Your task to perform on an android device: Show the shopping cart on ebay.com. Add "corsair k70" to the cart on ebay.com, then select checkout. Image 0: 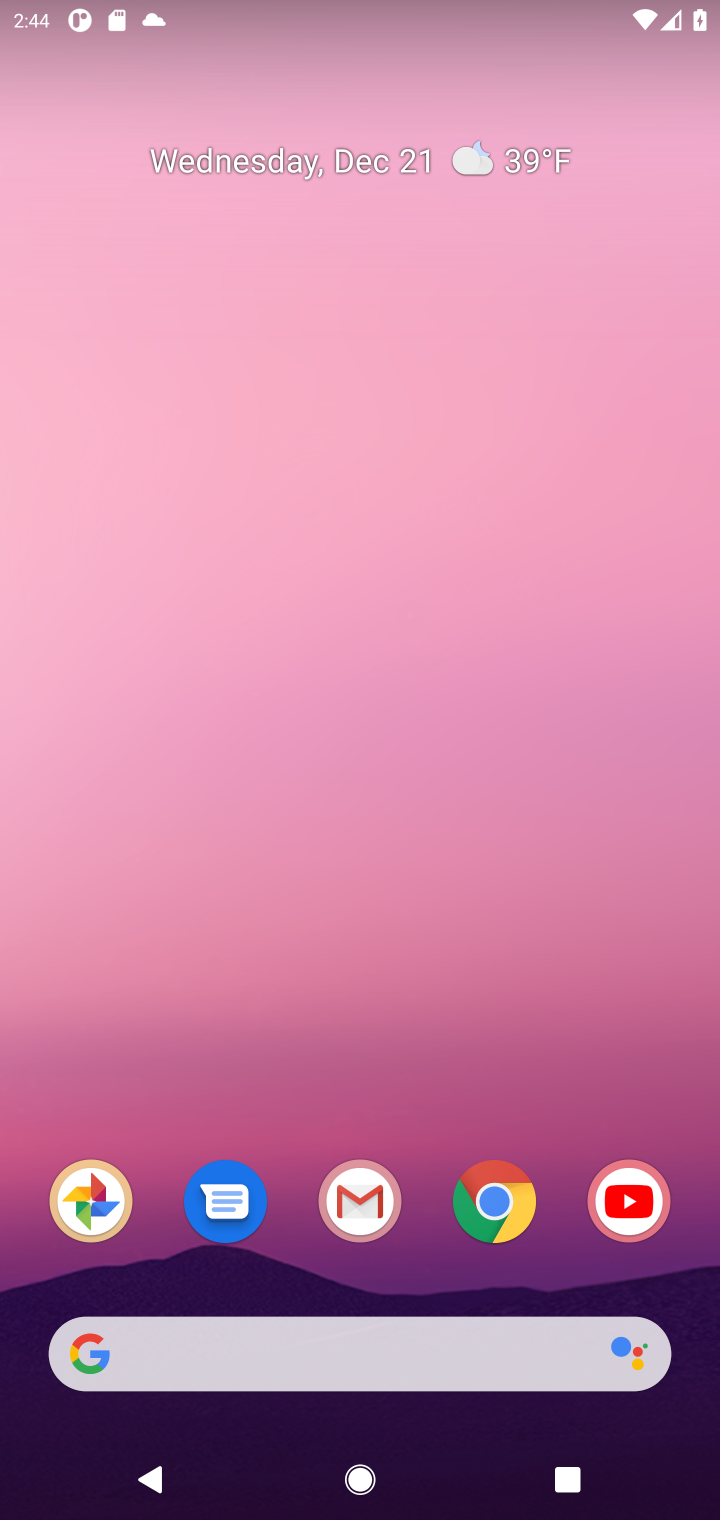
Step 0: click (505, 1202)
Your task to perform on an android device: Show the shopping cart on ebay.com. Add "corsair k70" to the cart on ebay.com, then select checkout. Image 1: 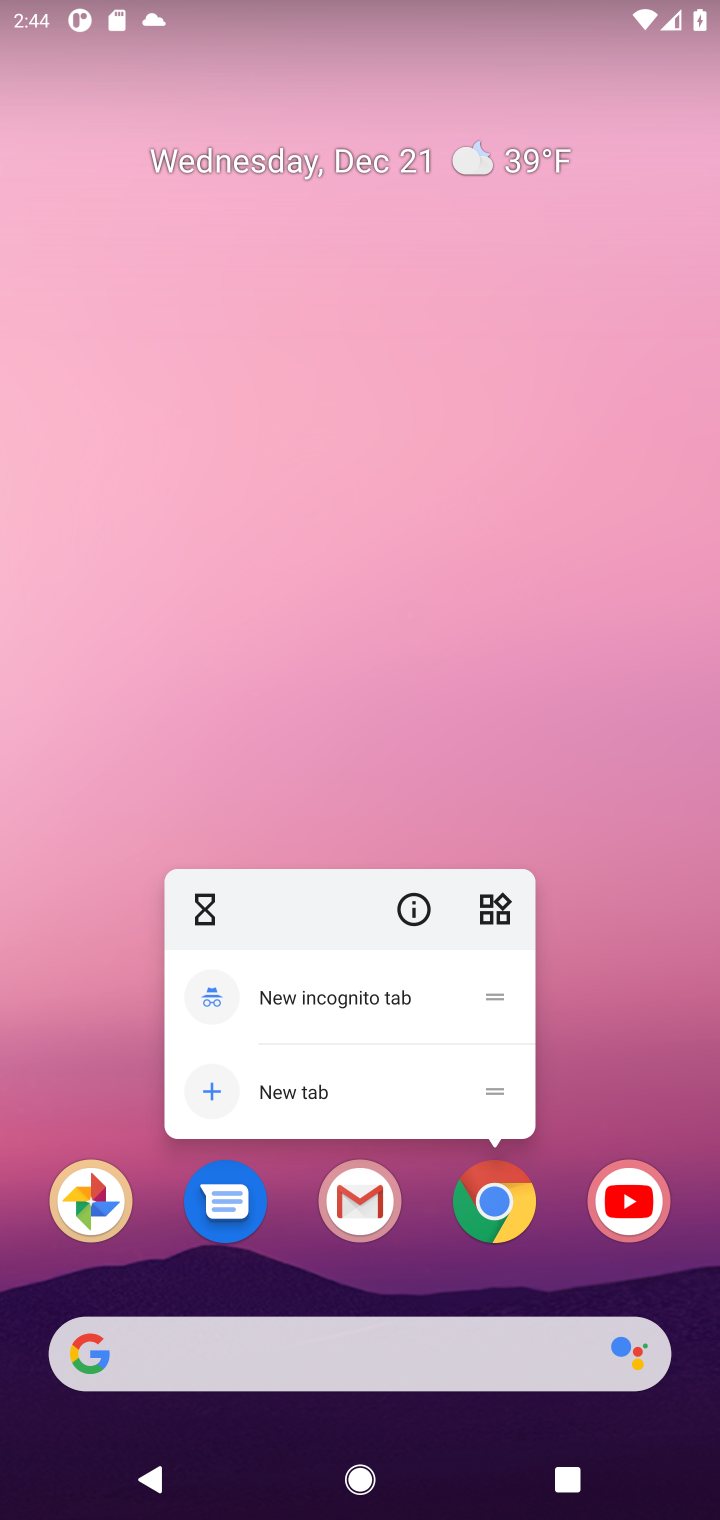
Step 1: click (505, 1202)
Your task to perform on an android device: Show the shopping cart on ebay.com. Add "corsair k70" to the cart on ebay.com, then select checkout. Image 2: 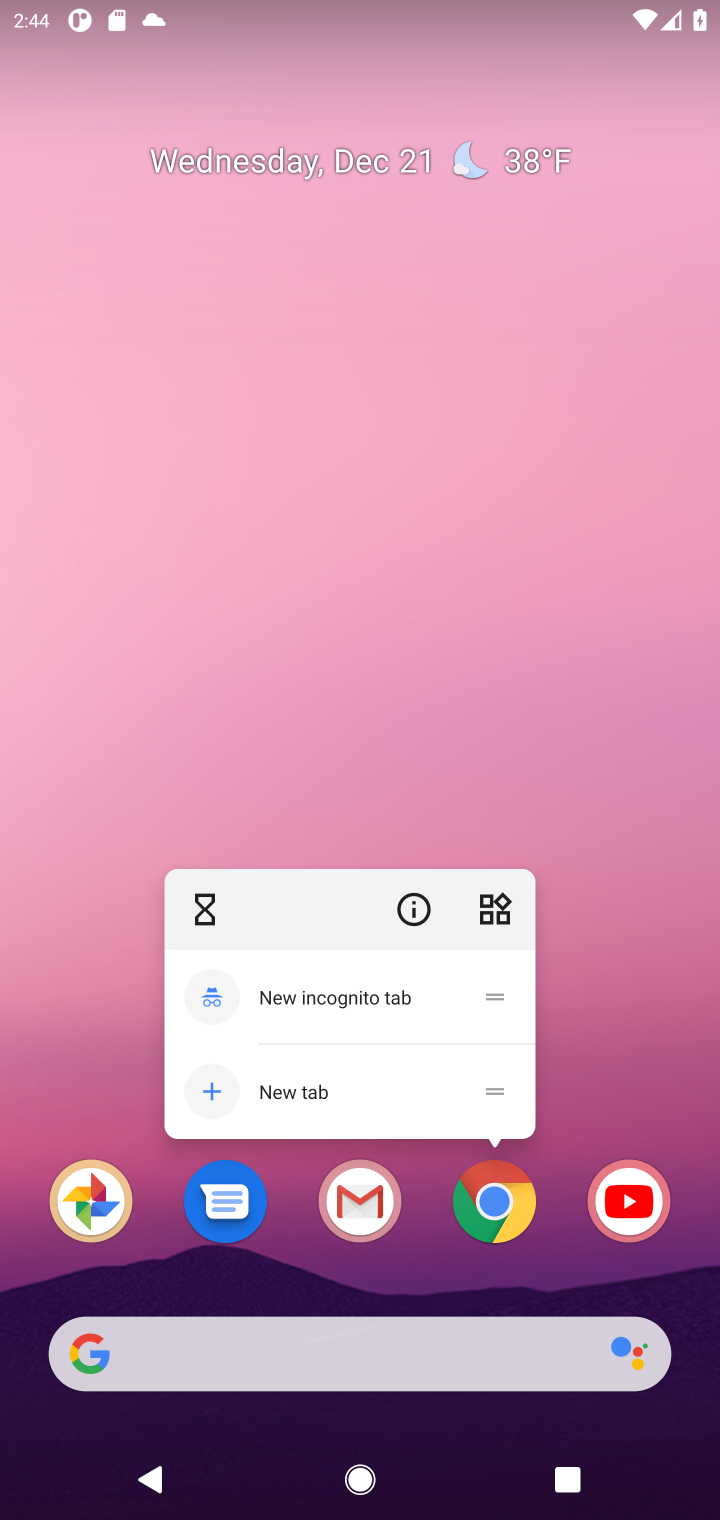
Step 2: click (496, 1202)
Your task to perform on an android device: Show the shopping cart on ebay.com. Add "corsair k70" to the cart on ebay.com, then select checkout. Image 3: 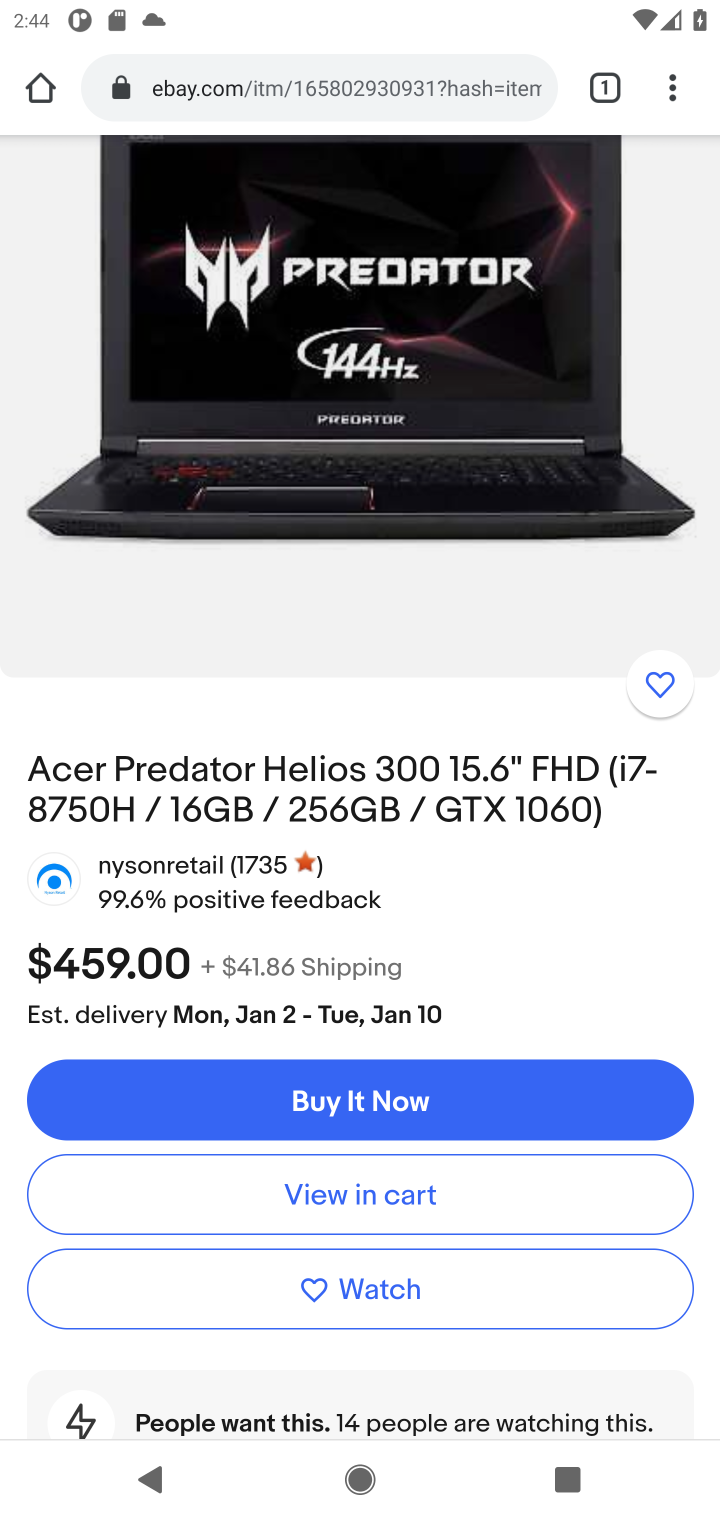
Step 3: drag from (426, 468) to (372, 1078)
Your task to perform on an android device: Show the shopping cart on ebay.com. Add "corsair k70" to the cart on ebay.com, then select checkout. Image 4: 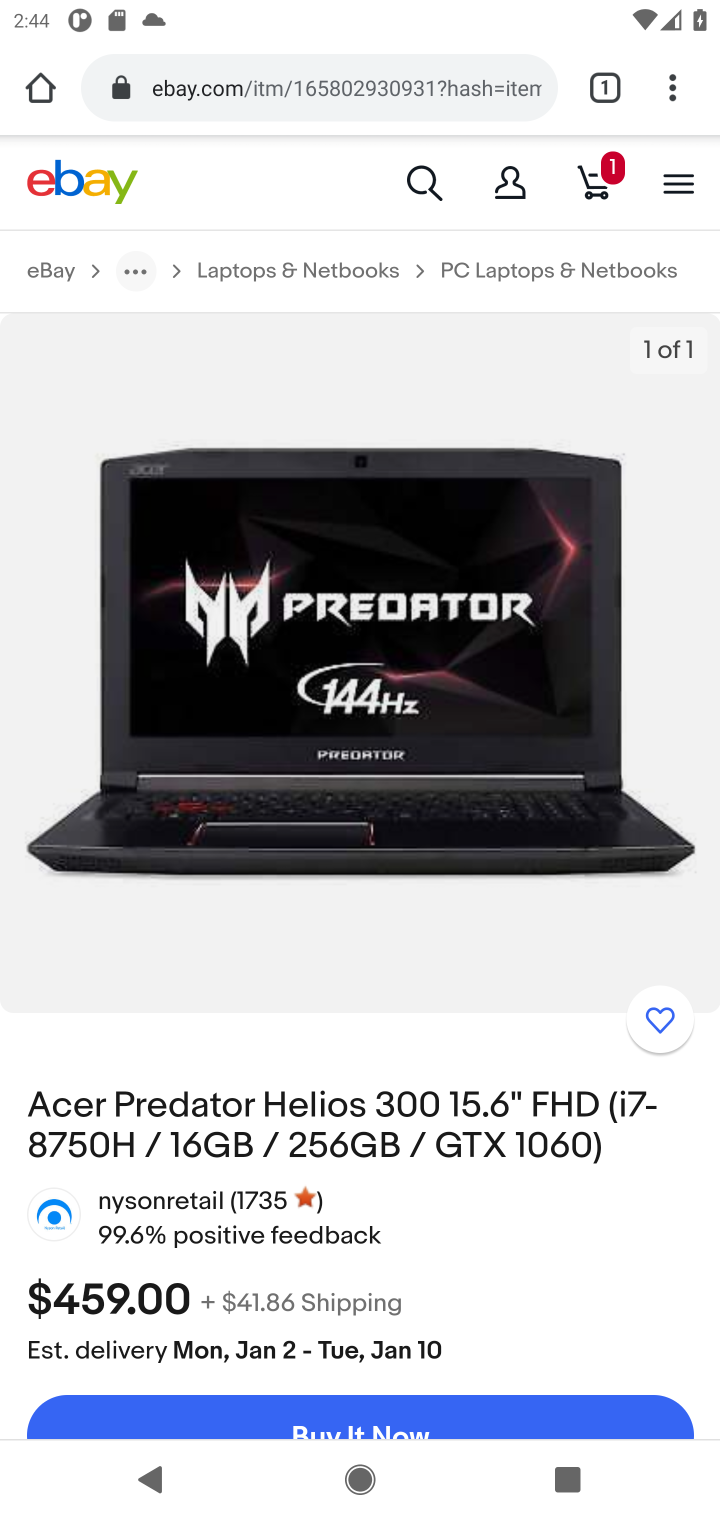
Step 4: click (594, 179)
Your task to perform on an android device: Show the shopping cart on ebay.com. Add "corsair k70" to the cart on ebay.com, then select checkout. Image 5: 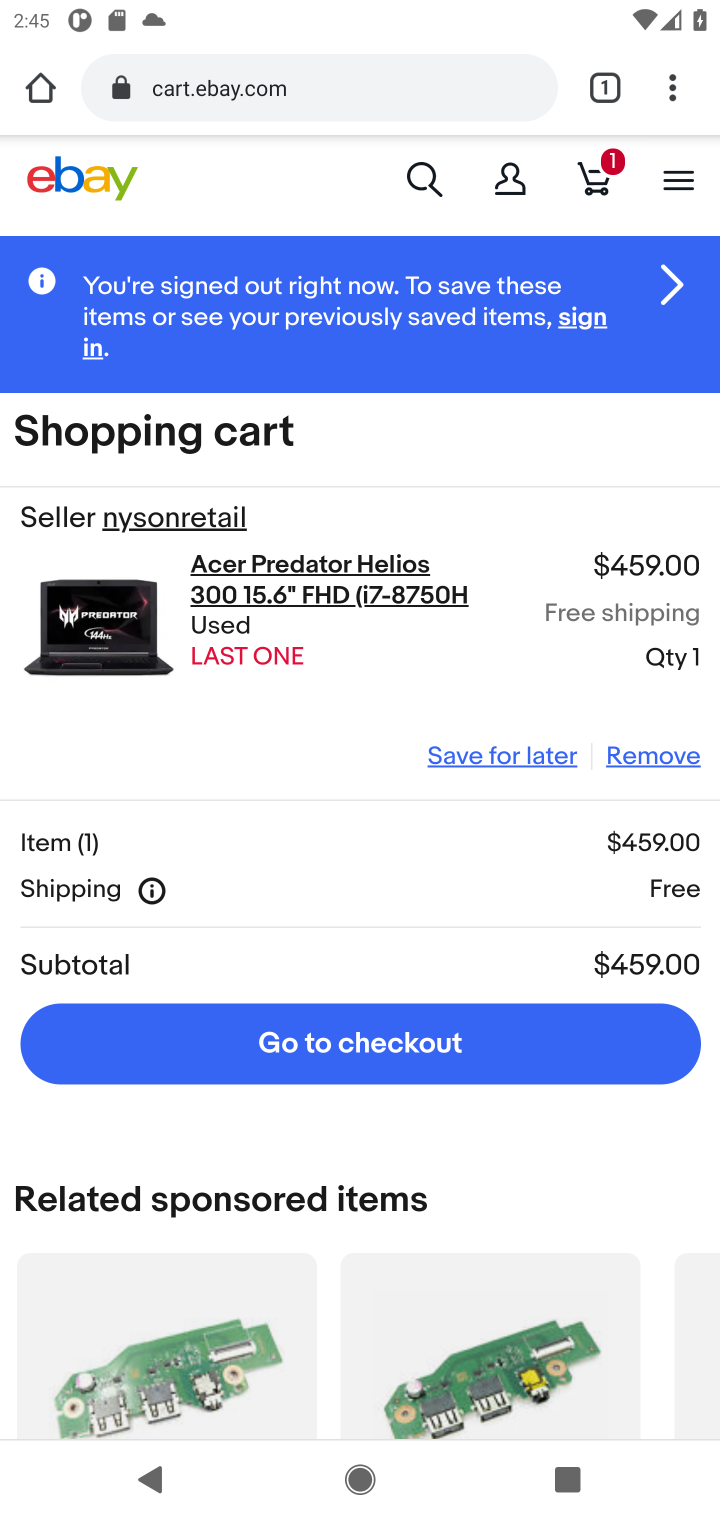
Step 5: click (416, 170)
Your task to perform on an android device: Show the shopping cart on ebay.com. Add "corsair k70" to the cart on ebay.com, then select checkout. Image 6: 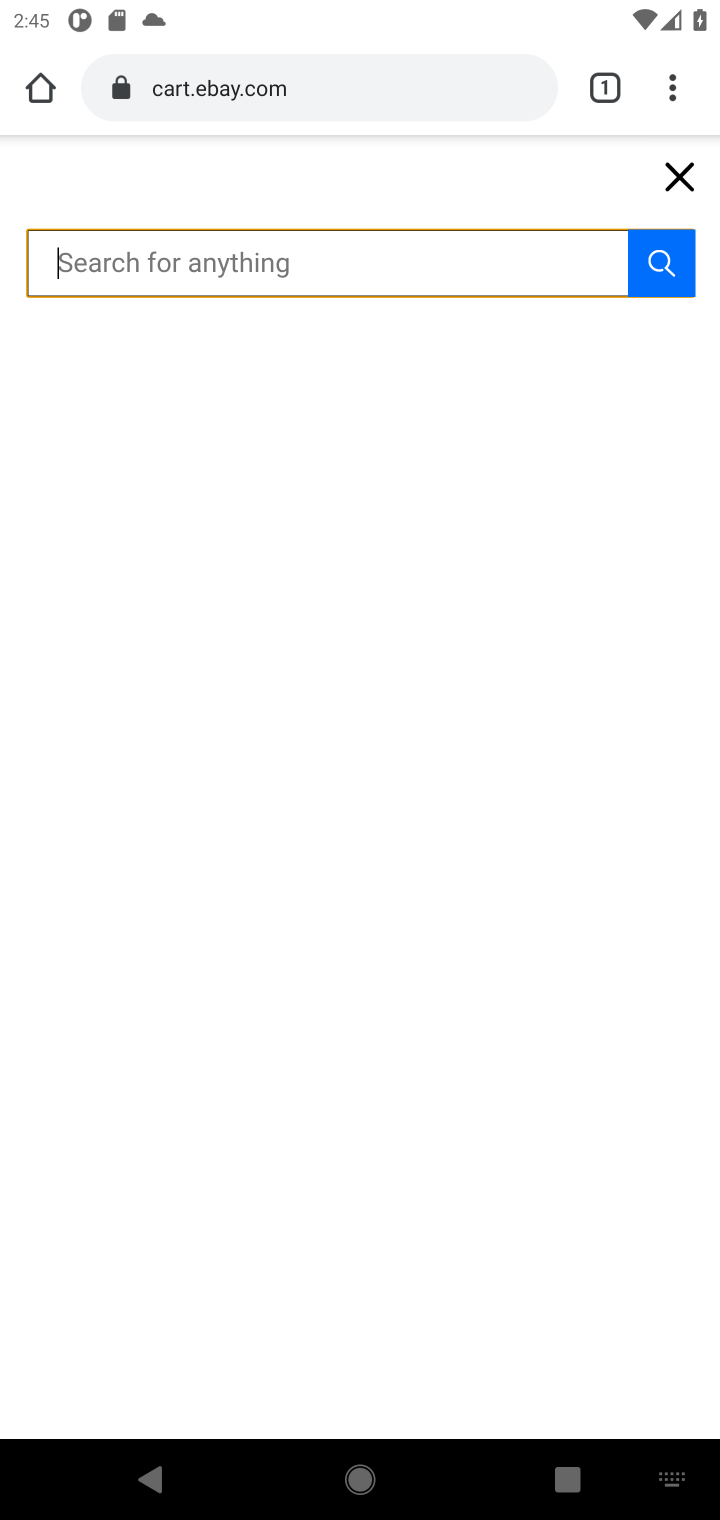
Step 6: type "corsair k70"
Your task to perform on an android device: Show the shopping cart on ebay.com. Add "corsair k70" to the cart on ebay.com, then select checkout. Image 7: 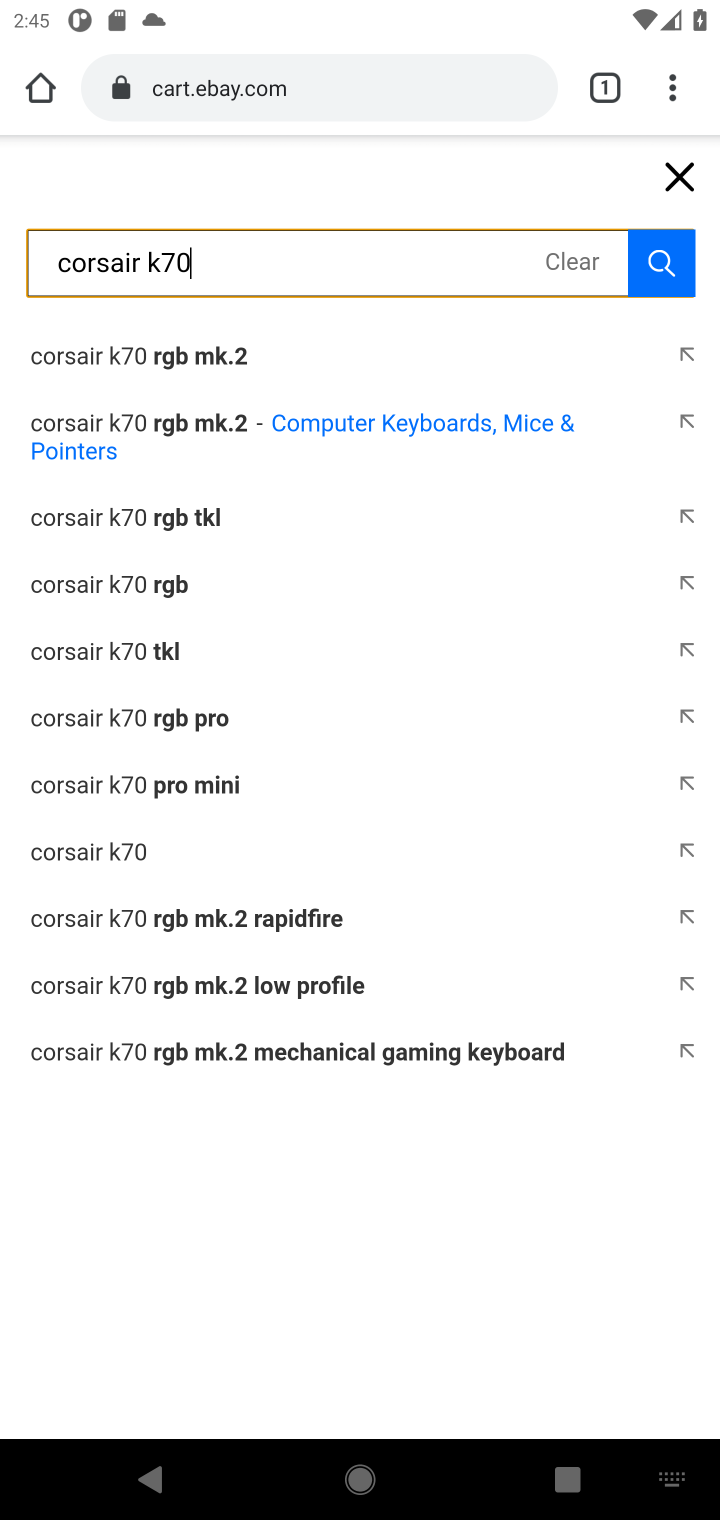
Step 7: click (92, 865)
Your task to perform on an android device: Show the shopping cart on ebay.com. Add "corsair k70" to the cart on ebay.com, then select checkout. Image 8: 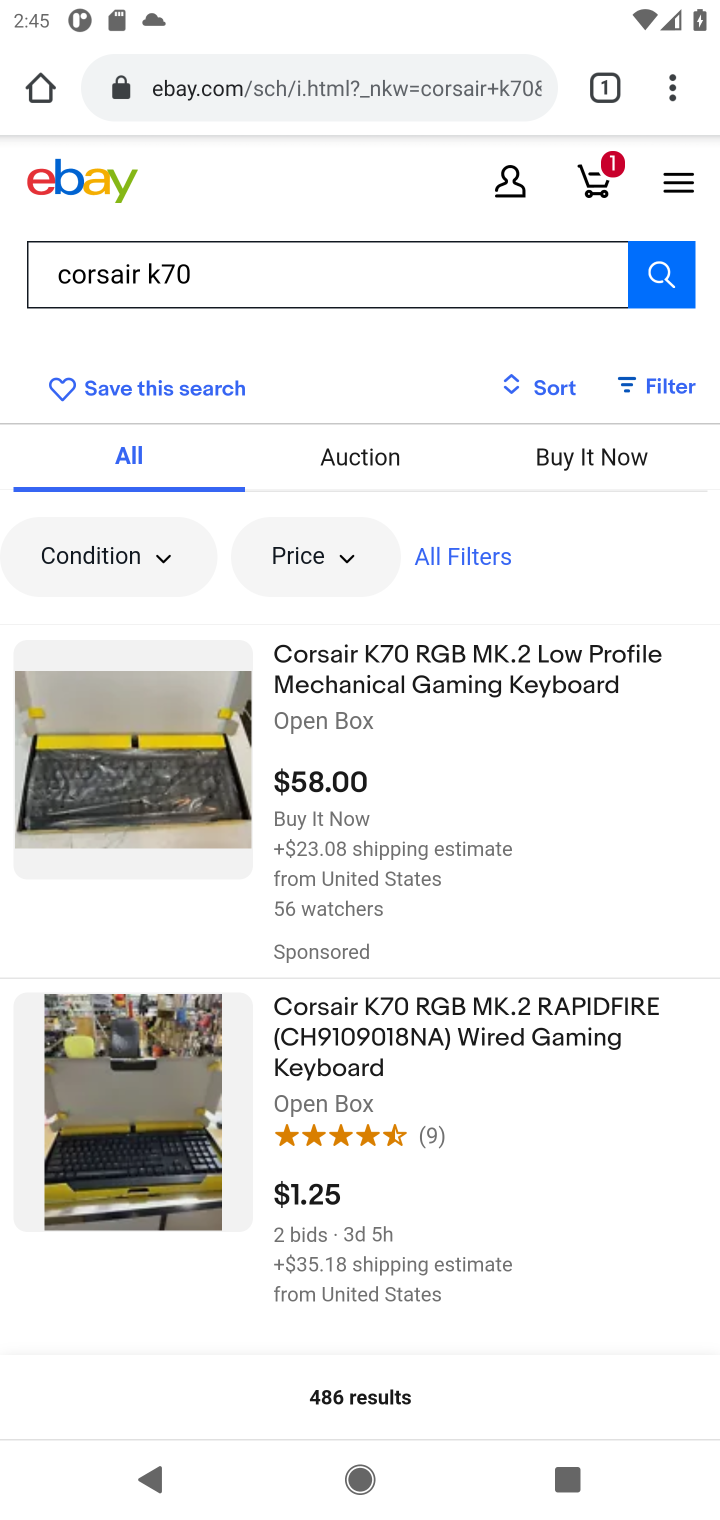
Step 8: click (326, 685)
Your task to perform on an android device: Show the shopping cart on ebay.com. Add "corsair k70" to the cart on ebay.com, then select checkout. Image 9: 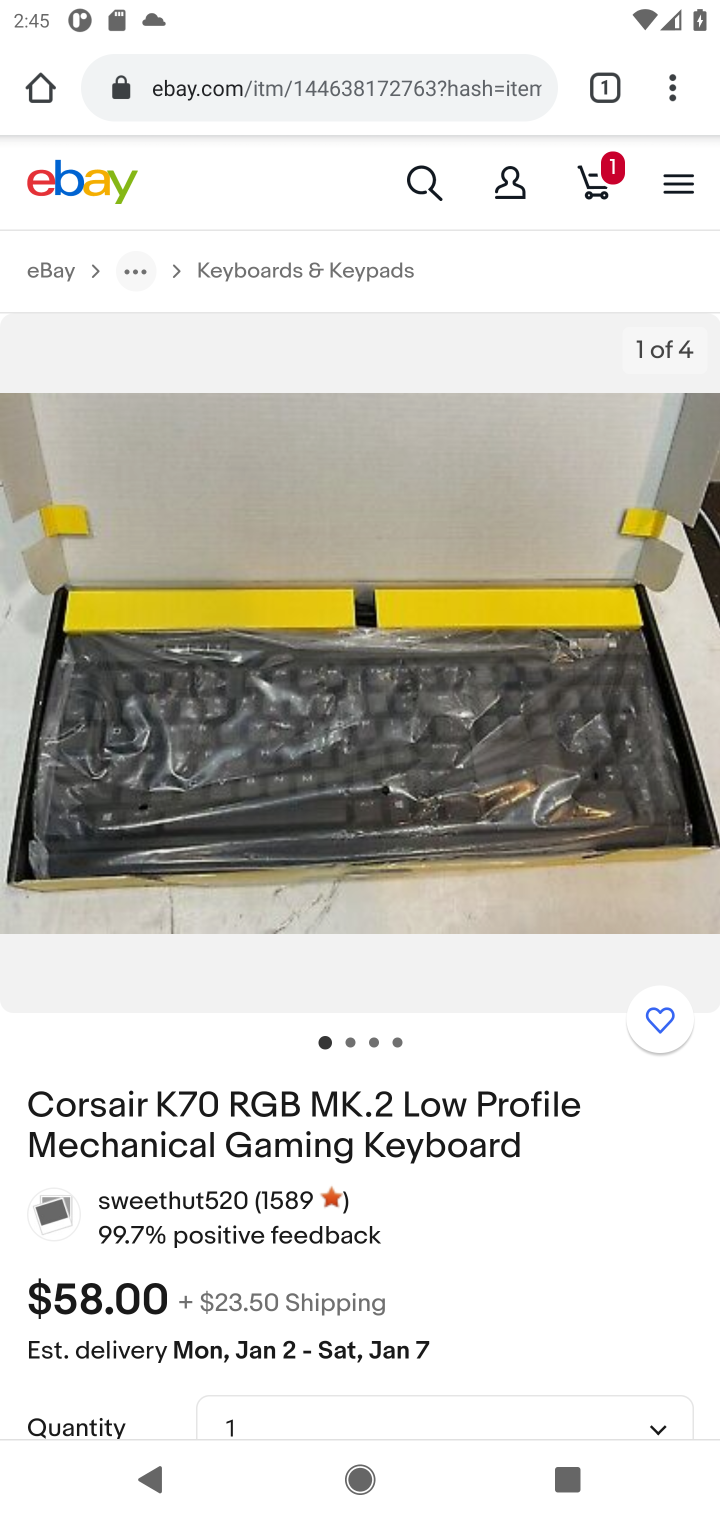
Step 9: drag from (364, 1073) to (364, 500)
Your task to perform on an android device: Show the shopping cart on ebay.com. Add "corsair k70" to the cart on ebay.com, then select checkout. Image 10: 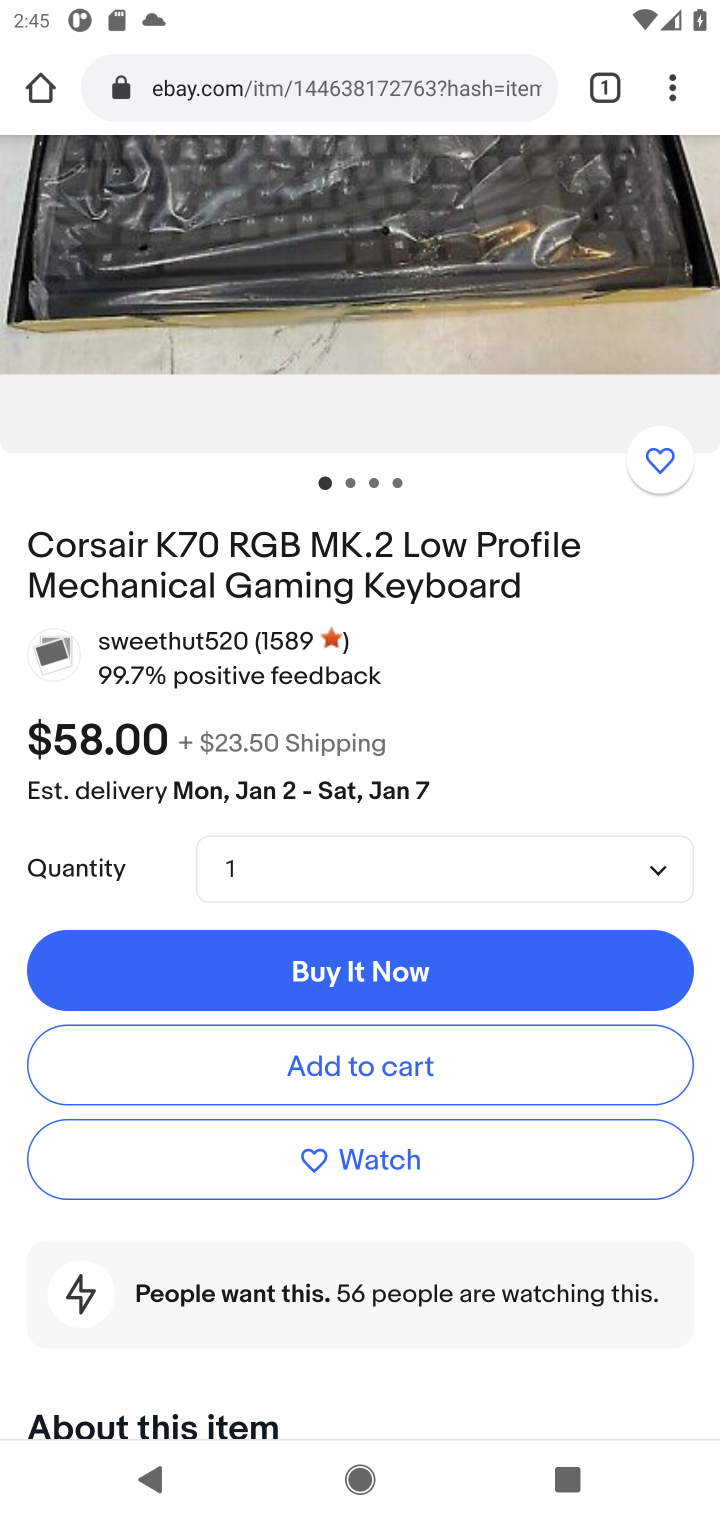
Step 10: click (341, 1076)
Your task to perform on an android device: Show the shopping cart on ebay.com. Add "corsair k70" to the cart on ebay.com, then select checkout. Image 11: 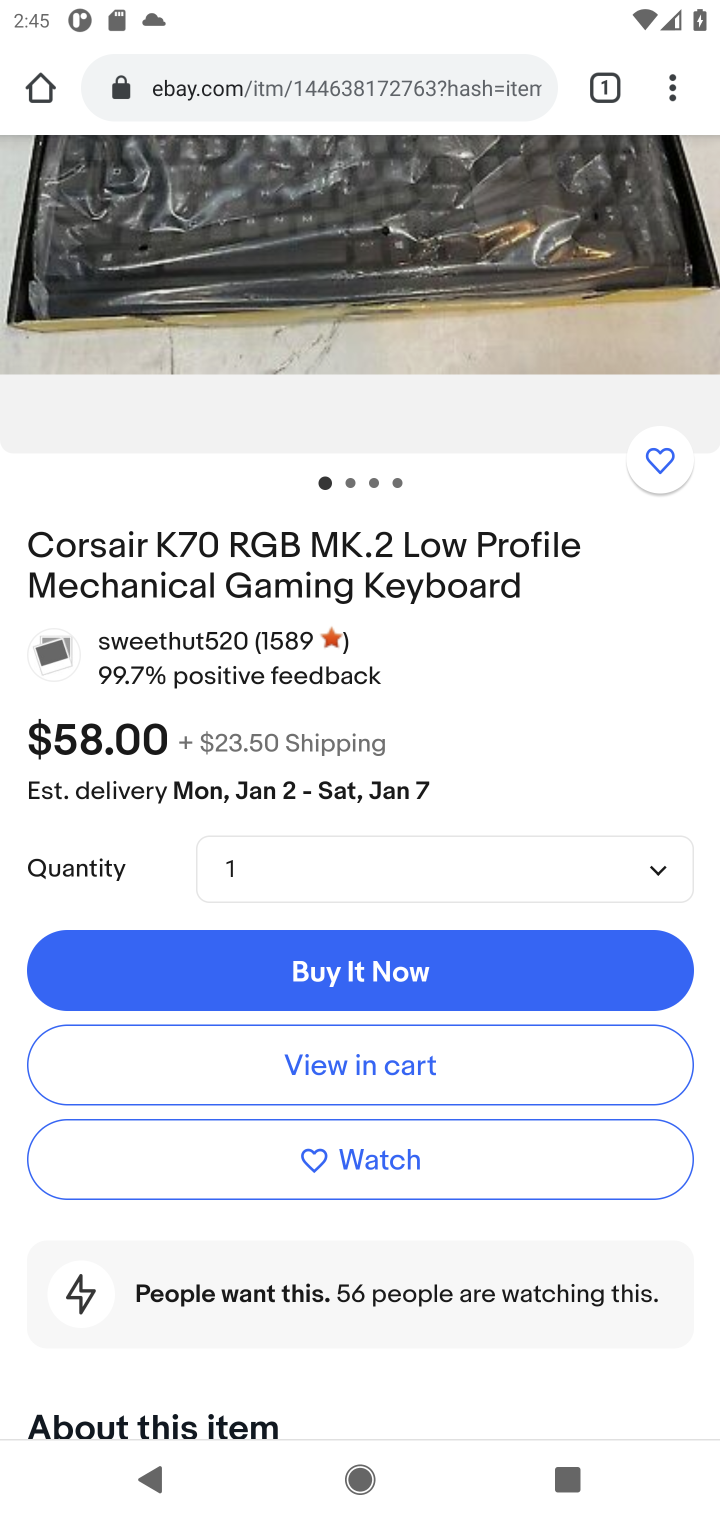
Step 11: click (341, 1076)
Your task to perform on an android device: Show the shopping cart on ebay.com. Add "corsair k70" to the cart on ebay.com, then select checkout. Image 12: 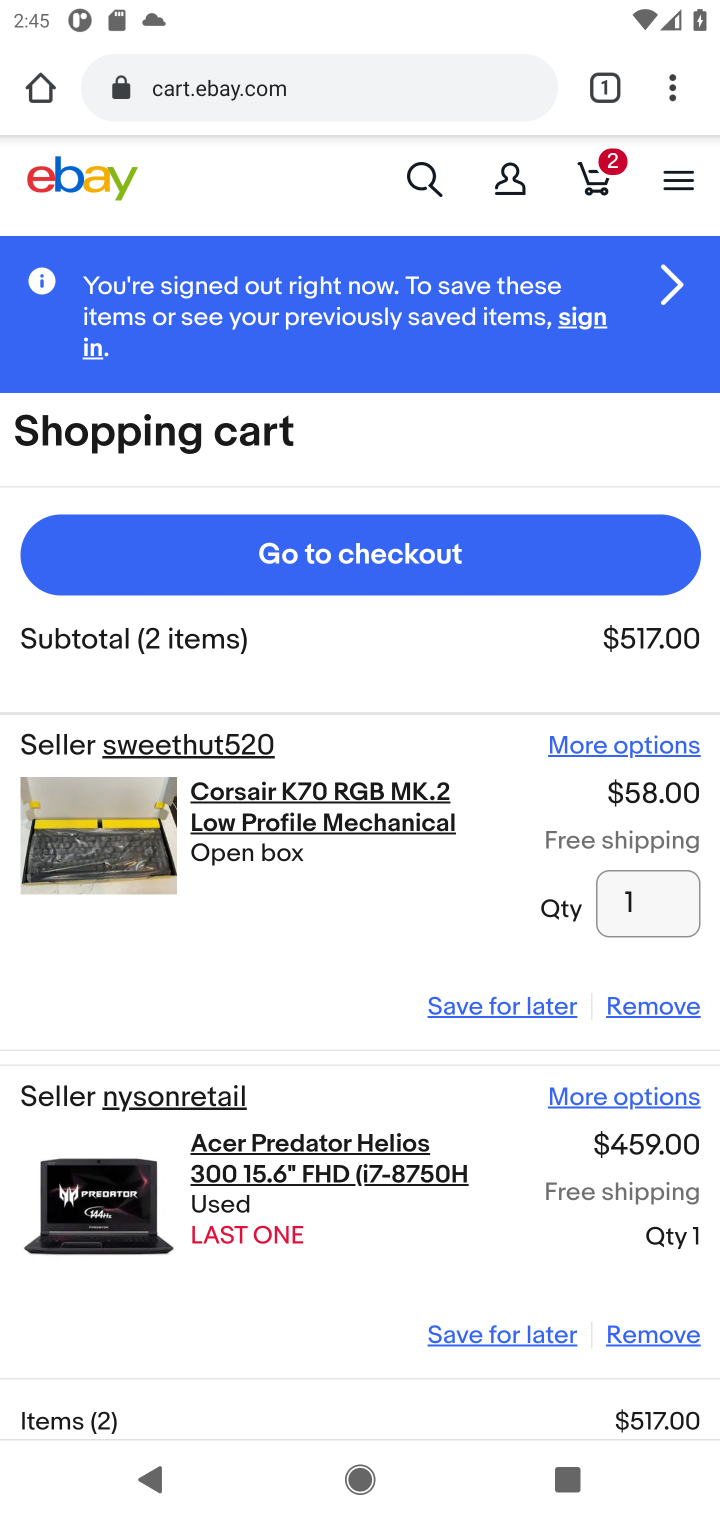
Step 12: click (355, 562)
Your task to perform on an android device: Show the shopping cart on ebay.com. Add "corsair k70" to the cart on ebay.com, then select checkout. Image 13: 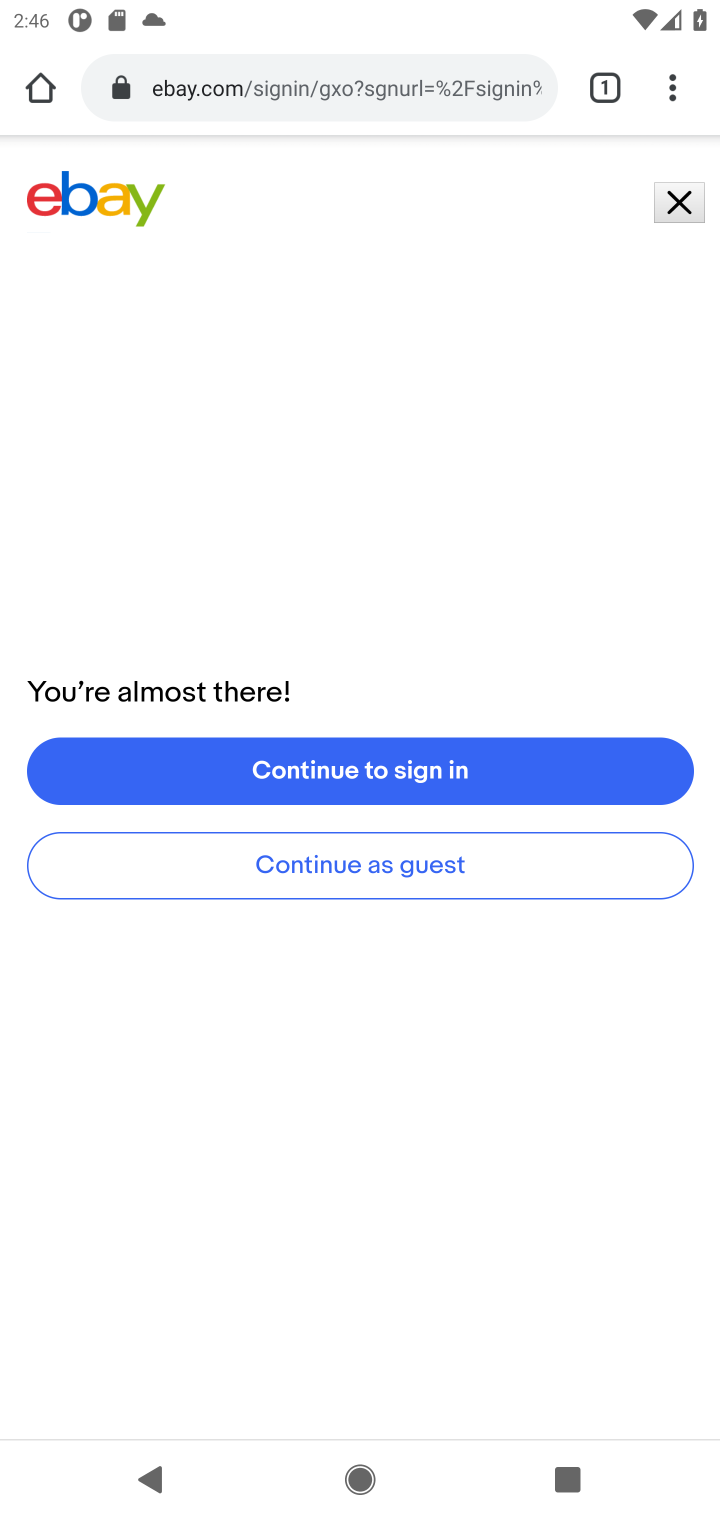
Step 13: task complete